Your task to perform on an android device: turn vacation reply on in the gmail app Image 0: 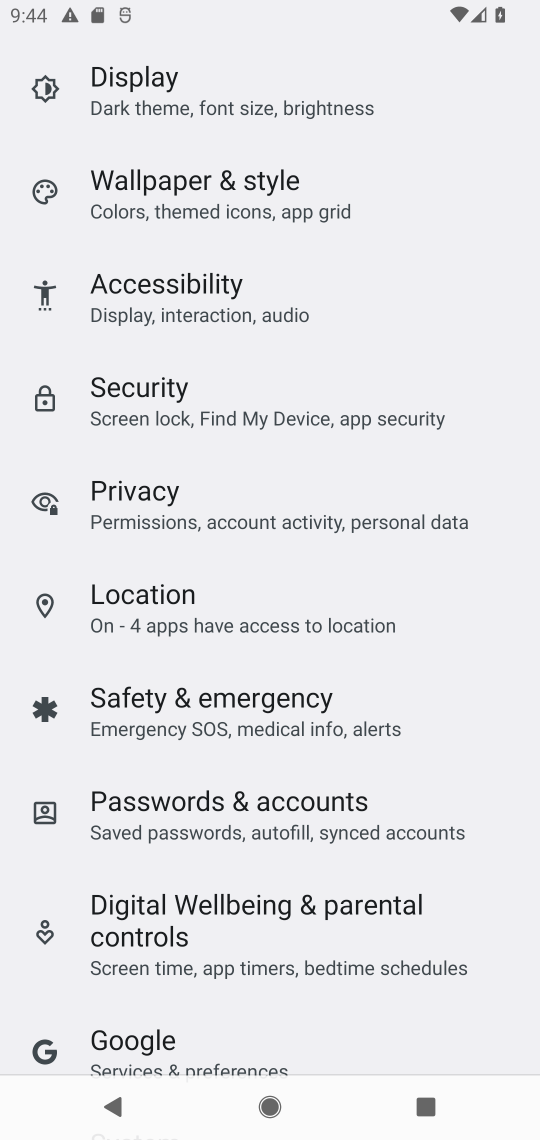
Step 0: press home button
Your task to perform on an android device: turn vacation reply on in the gmail app Image 1: 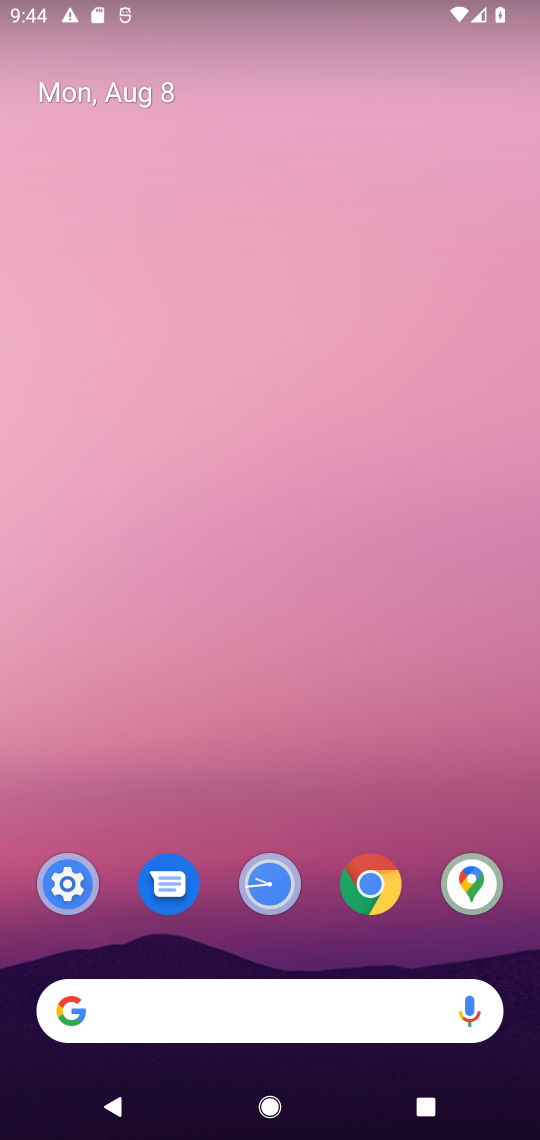
Step 1: drag from (291, 807) to (279, 176)
Your task to perform on an android device: turn vacation reply on in the gmail app Image 2: 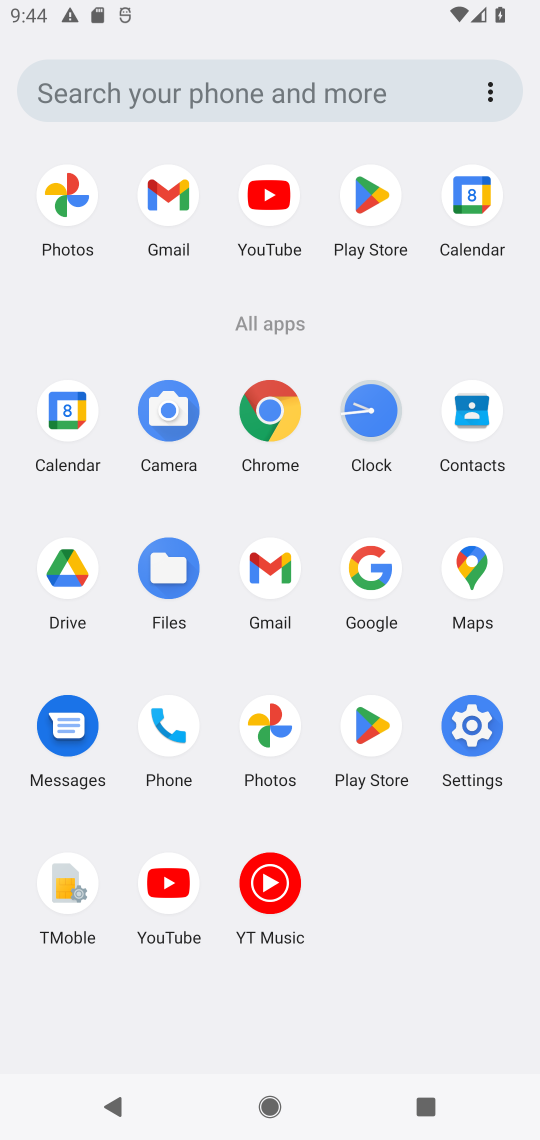
Step 2: click (272, 570)
Your task to perform on an android device: turn vacation reply on in the gmail app Image 3: 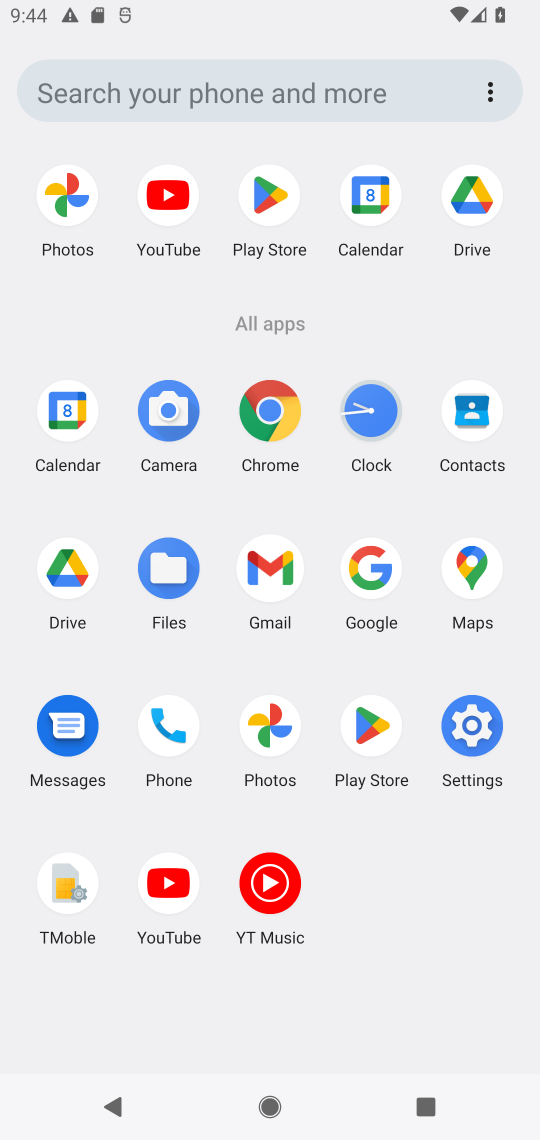
Step 3: click (262, 561)
Your task to perform on an android device: turn vacation reply on in the gmail app Image 4: 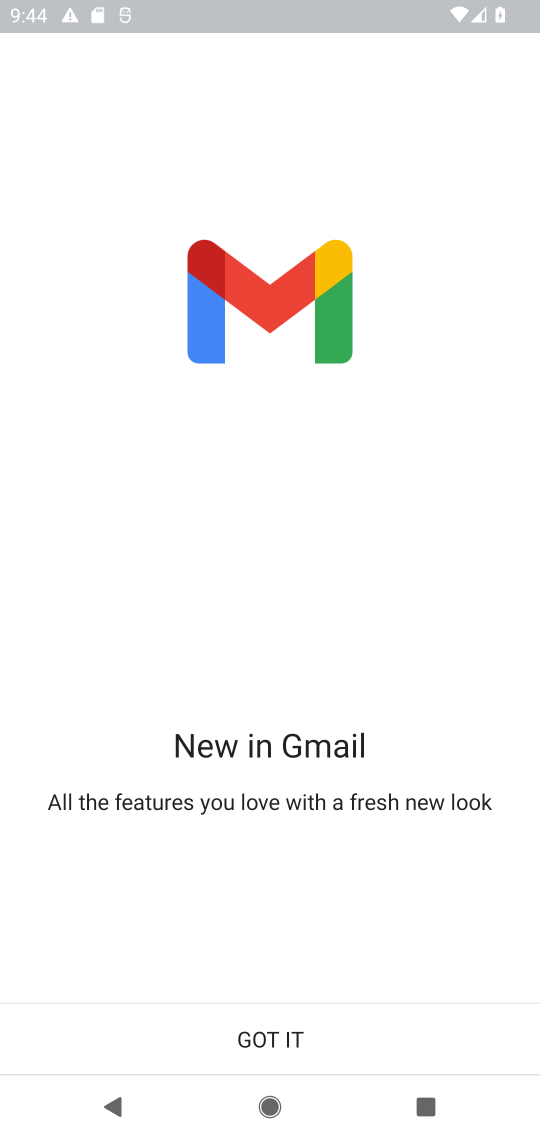
Step 4: click (266, 1022)
Your task to perform on an android device: turn vacation reply on in the gmail app Image 5: 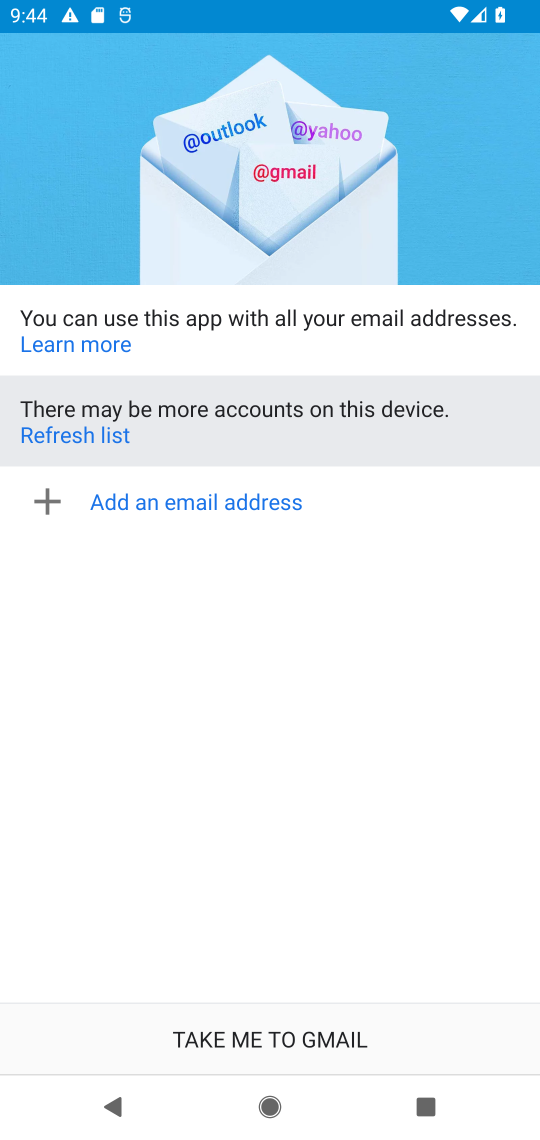
Step 5: click (280, 1041)
Your task to perform on an android device: turn vacation reply on in the gmail app Image 6: 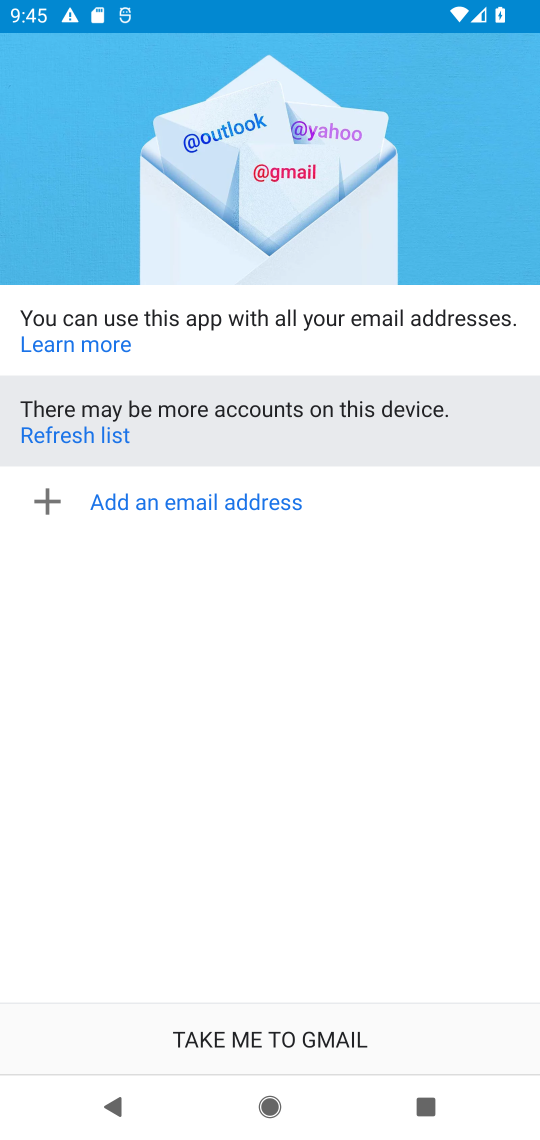
Step 6: click (255, 1026)
Your task to perform on an android device: turn vacation reply on in the gmail app Image 7: 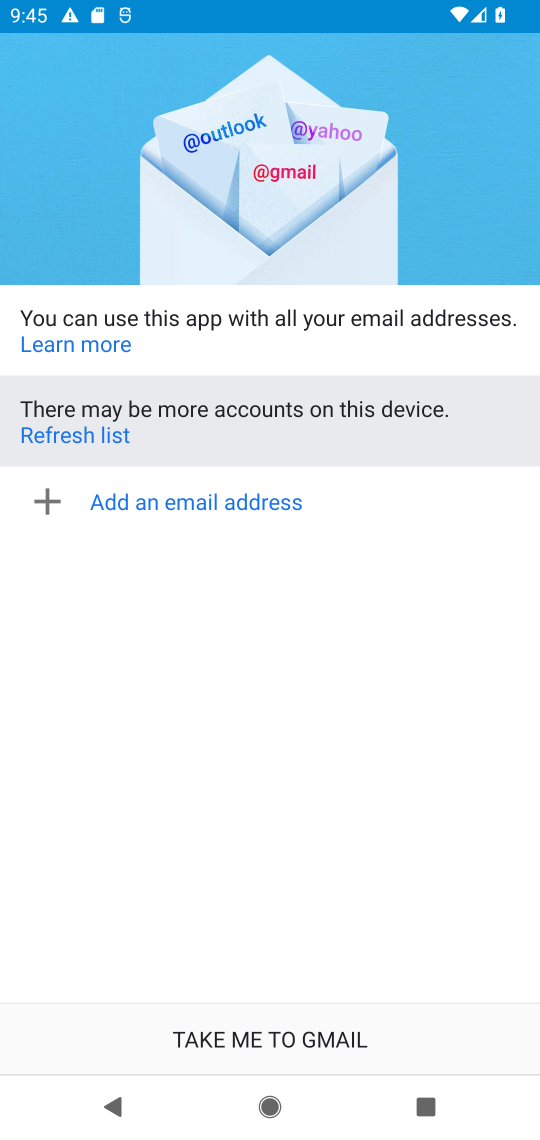
Step 7: click (285, 1035)
Your task to perform on an android device: turn vacation reply on in the gmail app Image 8: 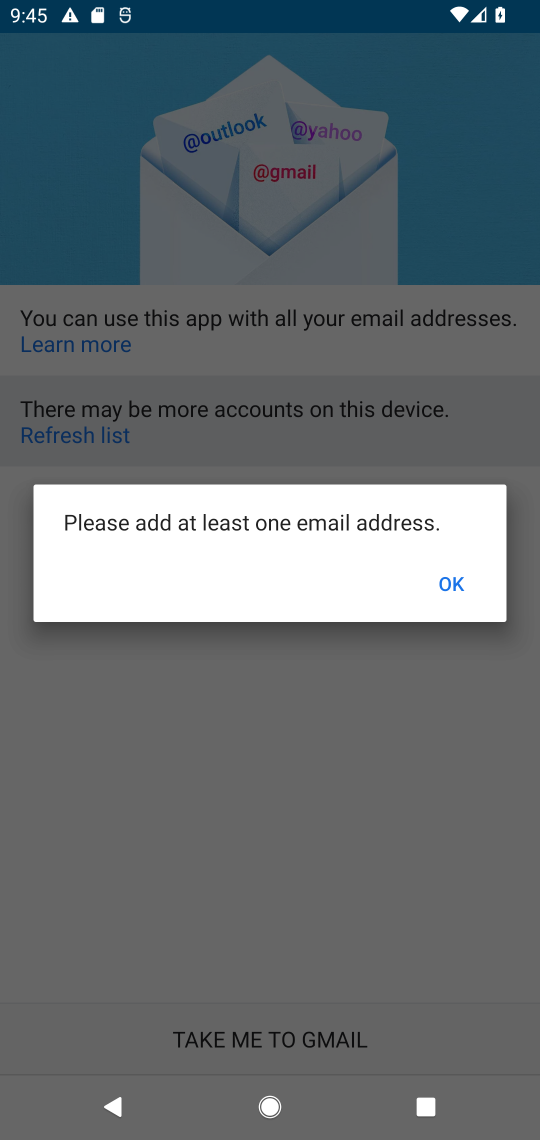
Step 8: click (454, 579)
Your task to perform on an android device: turn vacation reply on in the gmail app Image 9: 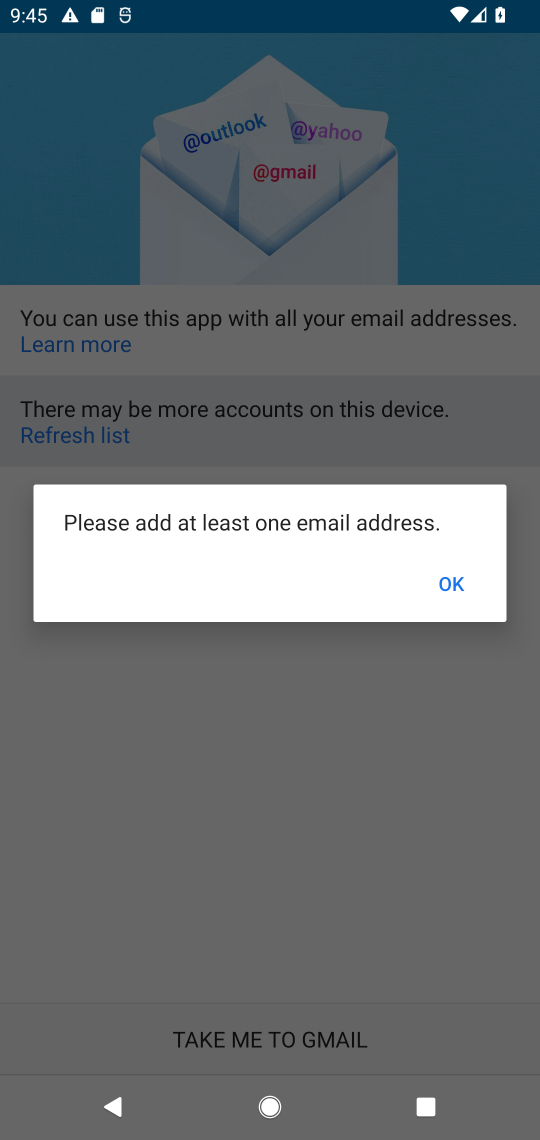
Step 9: click (455, 582)
Your task to perform on an android device: turn vacation reply on in the gmail app Image 10: 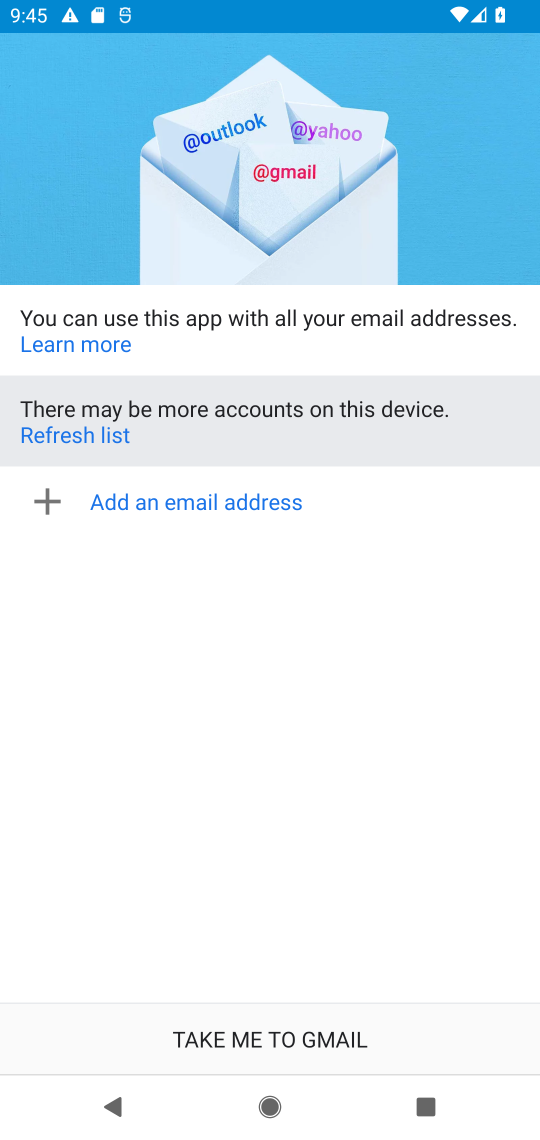
Step 10: task complete